Your task to perform on an android device: turn off notifications in google photos Image 0: 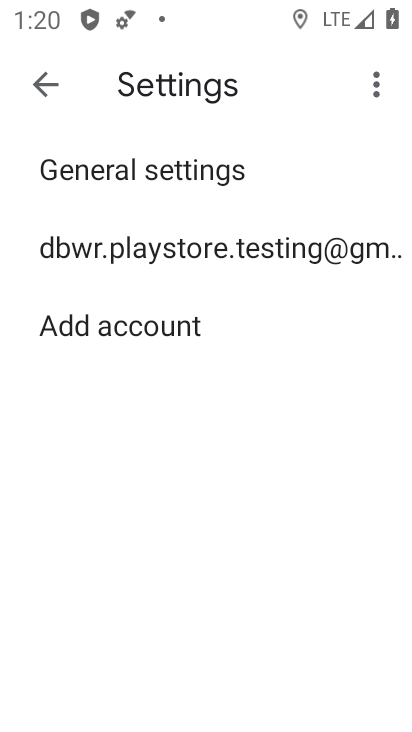
Step 0: press home button
Your task to perform on an android device: turn off notifications in google photos Image 1: 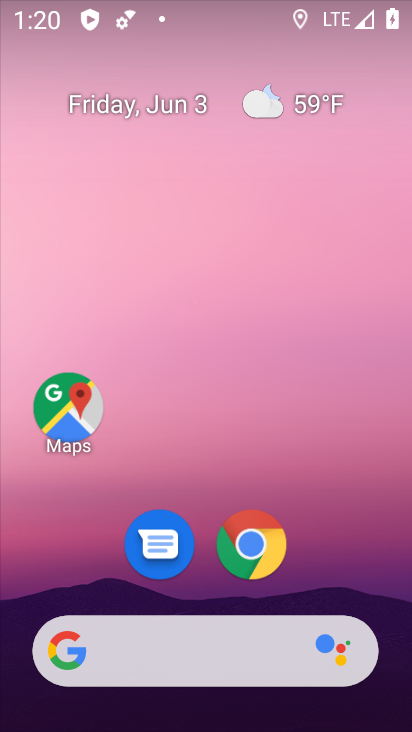
Step 1: drag from (254, 609) to (355, 1)
Your task to perform on an android device: turn off notifications in google photos Image 2: 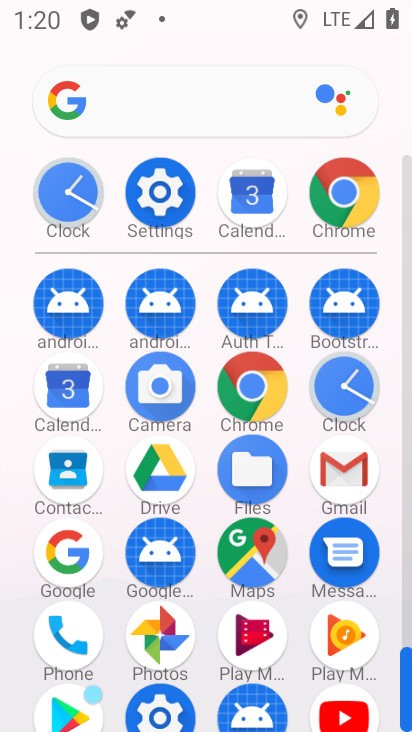
Step 2: click (176, 628)
Your task to perform on an android device: turn off notifications in google photos Image 3: 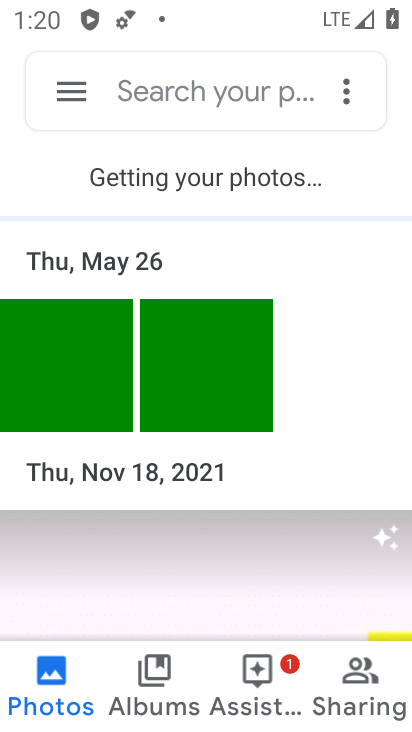
Step 3: click (58, 85)
Your task to perform on an android device: turn off notifications in google photos Image 4: 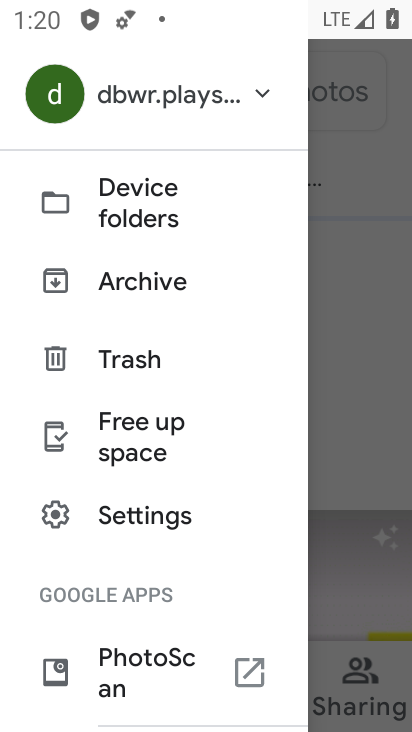
Step 4: click (122, 510)
Your task to perform on an android device: turn off notifications in google photos Image 5: 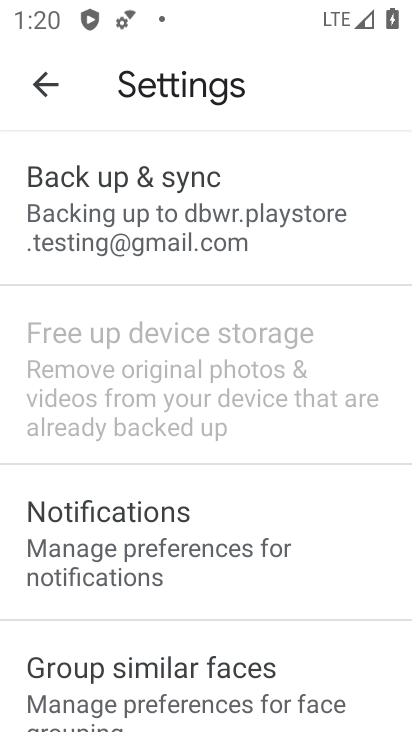
Step 5: click (188, 579)
Your task to perform on an android device: turn off notifications in google photos Image 6: 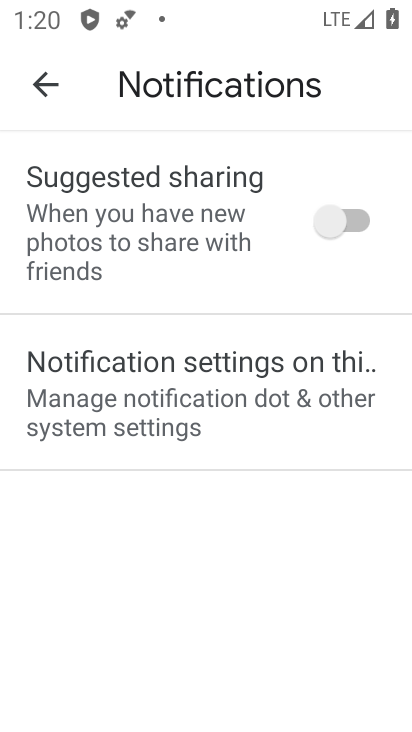
Step 6: click (123, 401)
Your task to perform on an android device: turn off notifications in google photos Image 7: 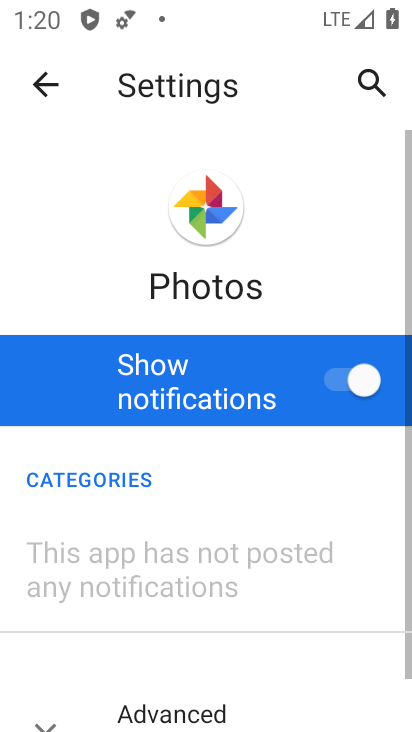
Step 7: click (350, 383)
Your task to perform on an android device: turn off notifications in google photos Image 8: 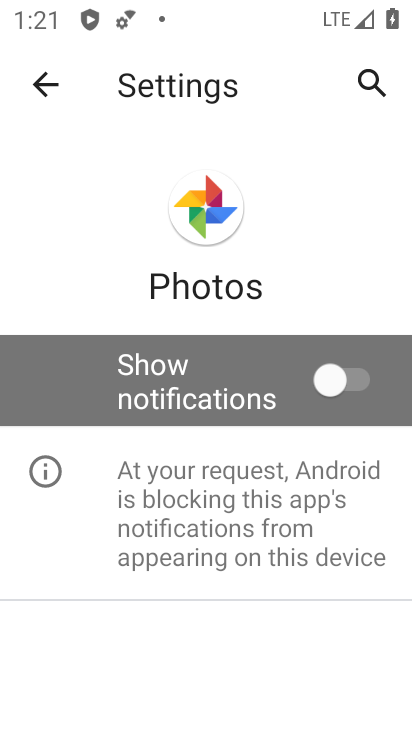
Step 8: task complete